Your task to perform on an android device: turn on priority inbox in the gmail app Image 0: 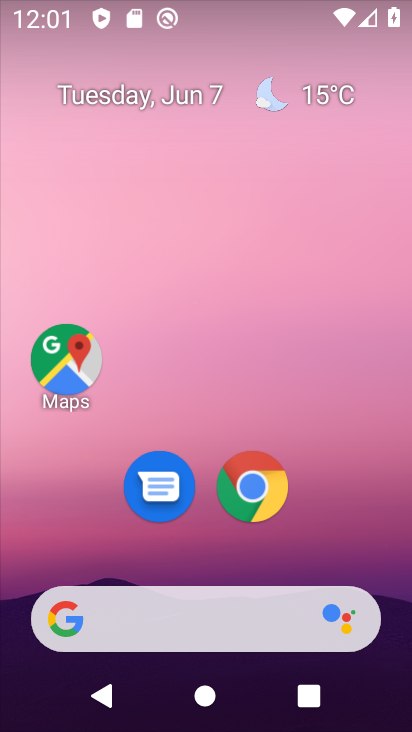
Step 0: drag from (344, 455) to (13, 15)
Your task to perform on an android device: turn on priority inbox in the gmail app Image 1: 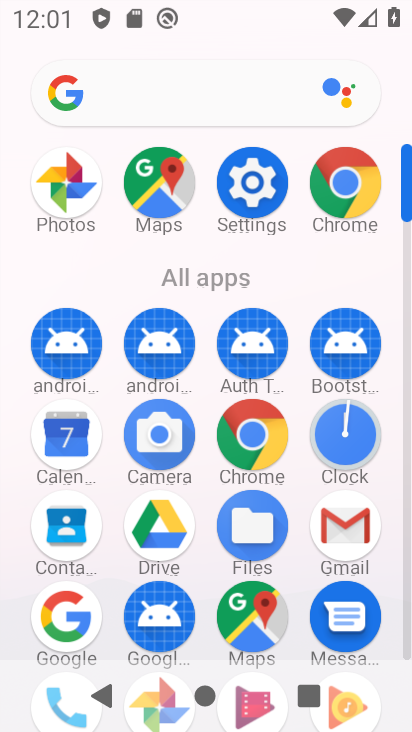
Step 1: click (349, 509)
Your task to perform on an android device: turn on priority inbox in the gmail app Image 2: 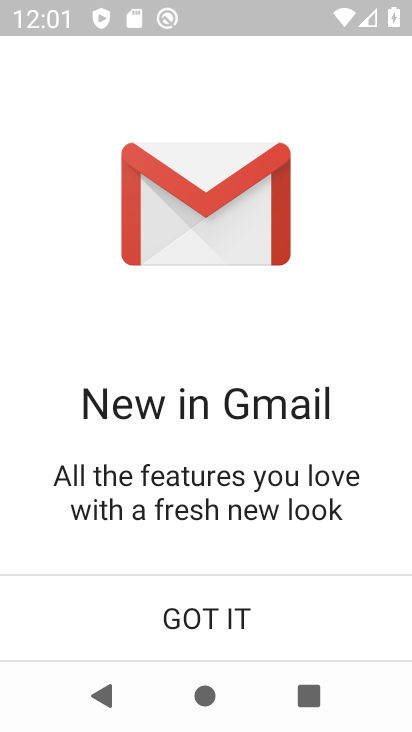
Step 2: click (250, 617)
Your task to perform on an android device: turn on priority inbox in the gmail app Image 3: 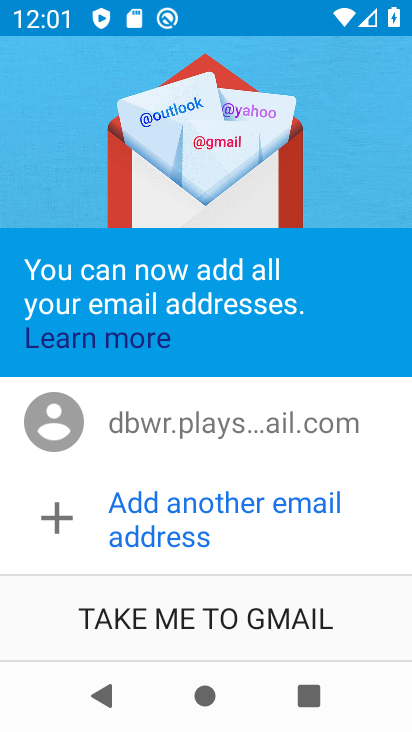
Step 3: click (200, 605)
Your task to perform on an android device: turn on priority inbox in the gmail app Image 4: 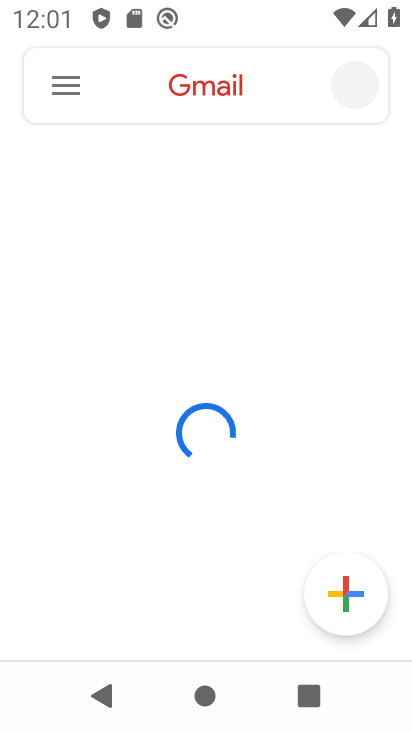
Step 4: click (65, 80)
Your task to perform on an android device: turn on priority inbox in the gmail app Image 5: 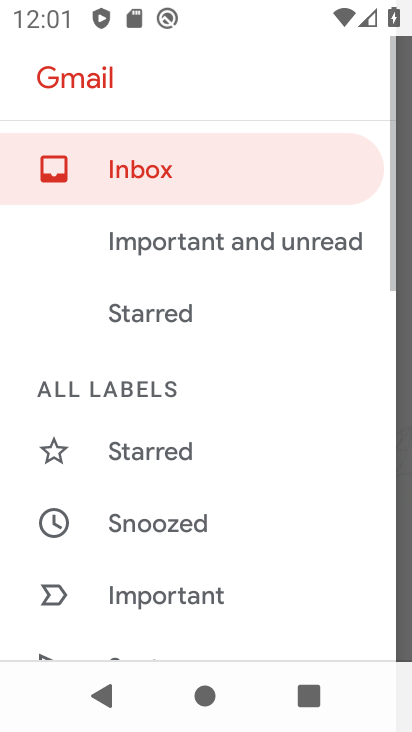
Step 5: drag from (210, 525) to (241, 82)
Your task to perform on an android device: turn on priority inbox in the gmail app Image 6: 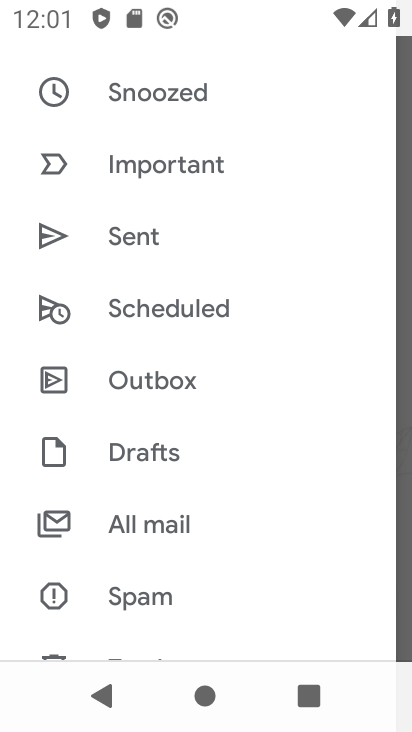
Step 6: drag from (156, 567) to (187, 108)
Your task to perform on an android device: turn on priority inbox in the gmail app Image 7: 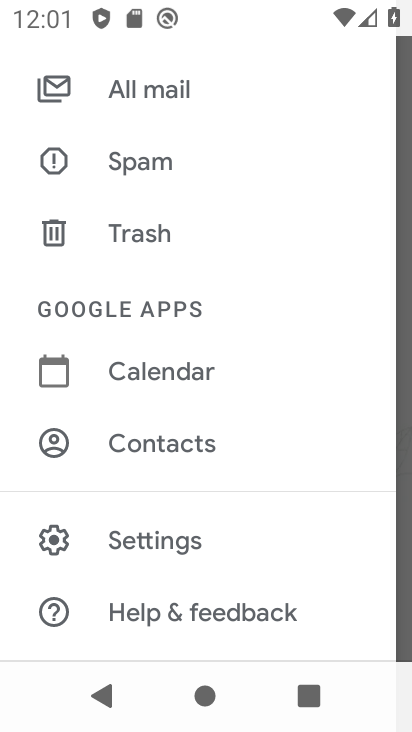
Step 7: click (168, 537)
Your task to perform on an android device: turn on priority inbox in the gmail app Image 8: 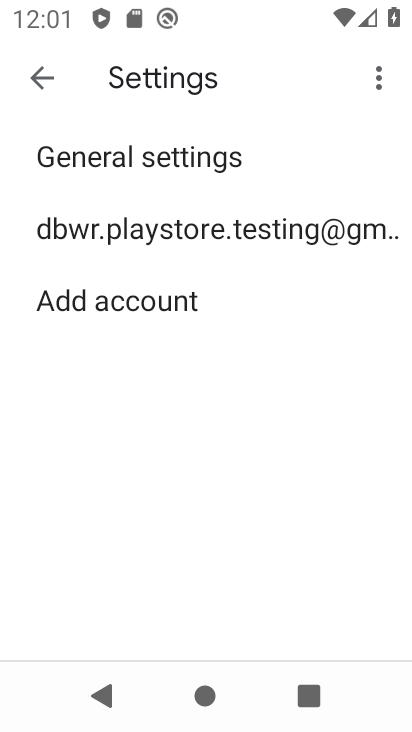
Step 8: click (124, 232)
Your task to perform on an android device: turn on priority inbox in the gmail app Image 9: 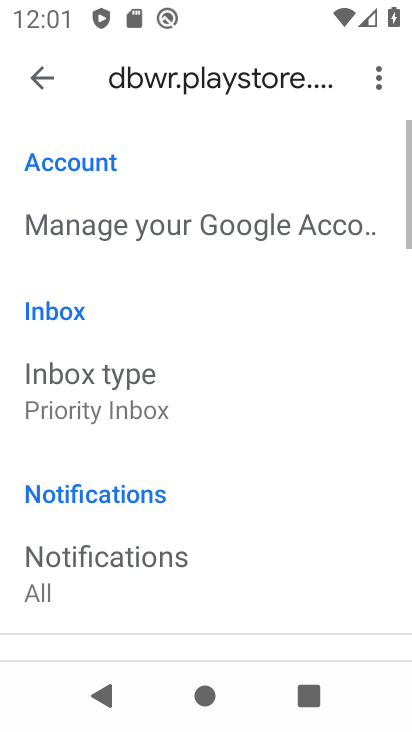
Step 9: click (119, 411)
Your task to perform on an android device: turn on priority inbox in the gmail app Image 10: 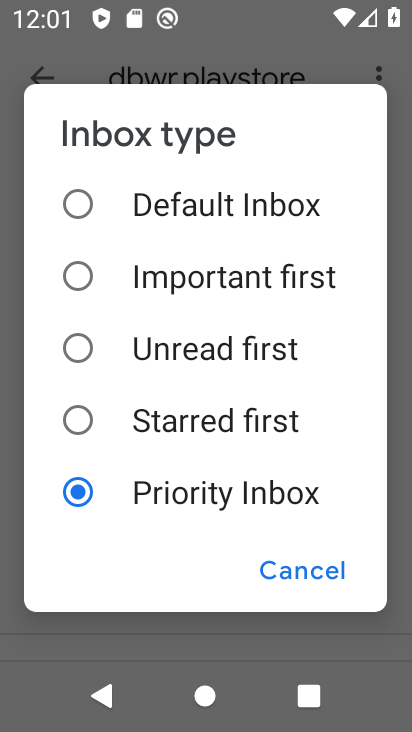
Step 10: task complete